Your task to perform on an android device: star an email in the gmail app Image 0: 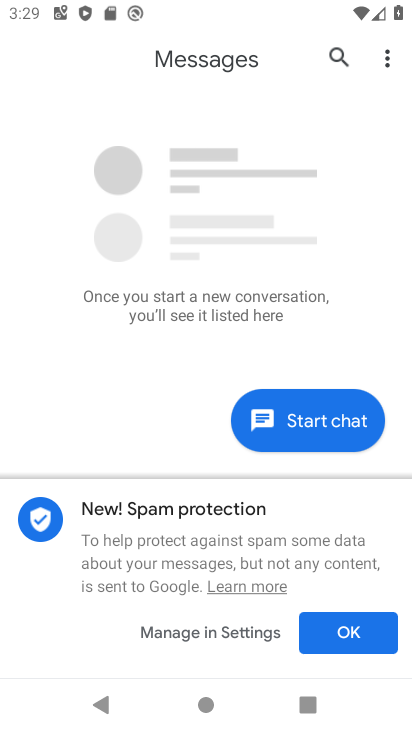
Step 0: press home button
Your task to perform on an android device: star an email in the gmail app Image 1: 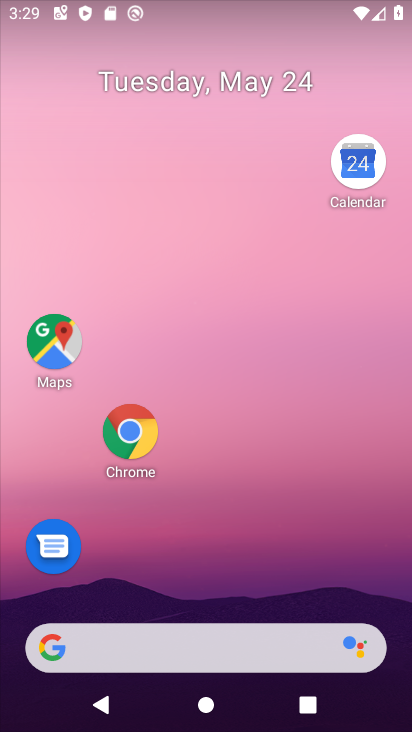
Step 1: drag from (212, 534) to (201, 108)
Your task to perform on an android device: star an email in the gmail app Image 2: 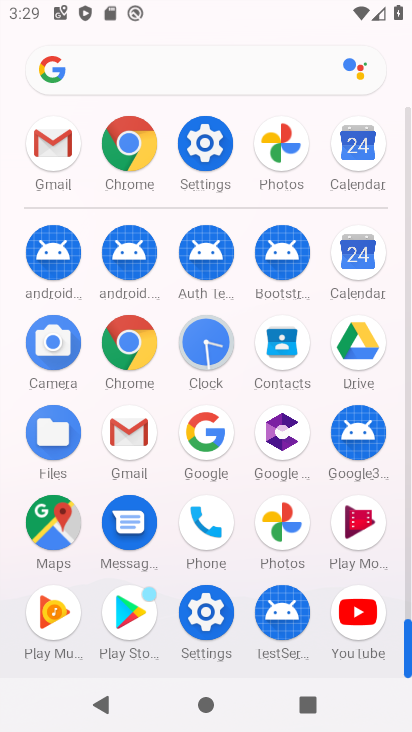
Step 2: click (126, 447)
Your task to perform on an android device: star an email in the gmail app Image 3: 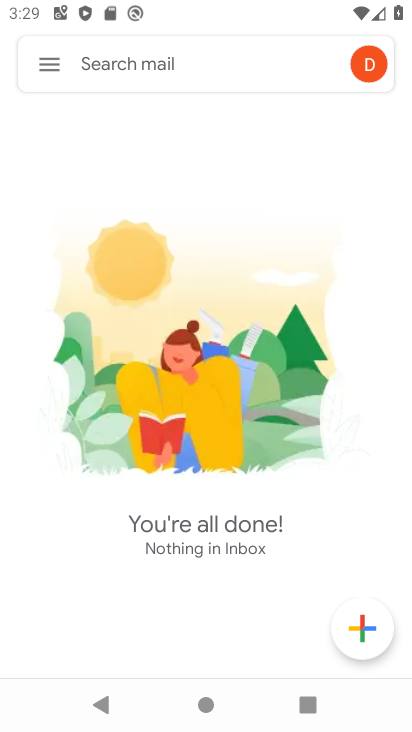
Step 3: drag from (239, 604) to (267, 230)
Your task to perform on an android device: star an email in the gmail app Image 4: 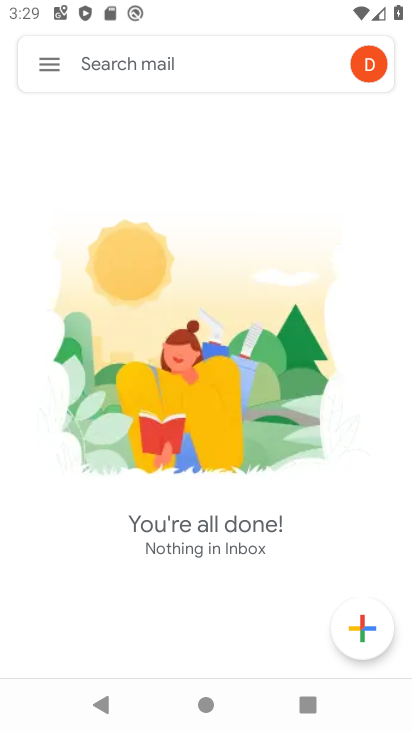
Step 4: click (58, 73)
Your task to perform on an android device: star an email in the gmail app Image 5: 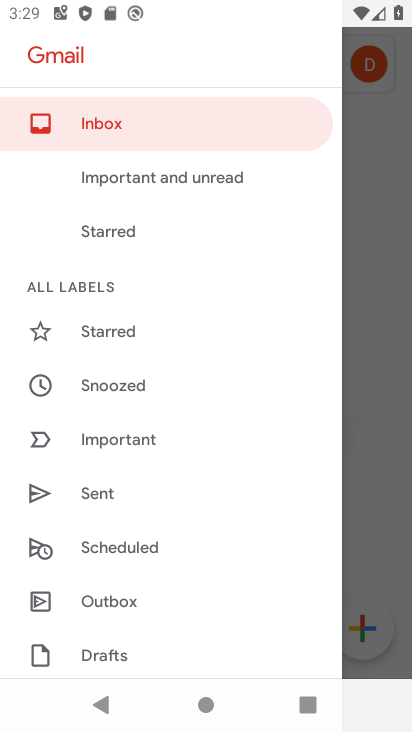
Step 5: click (111, 338)
Your task to perform on an android device: star an email in the gmail app Image 6: 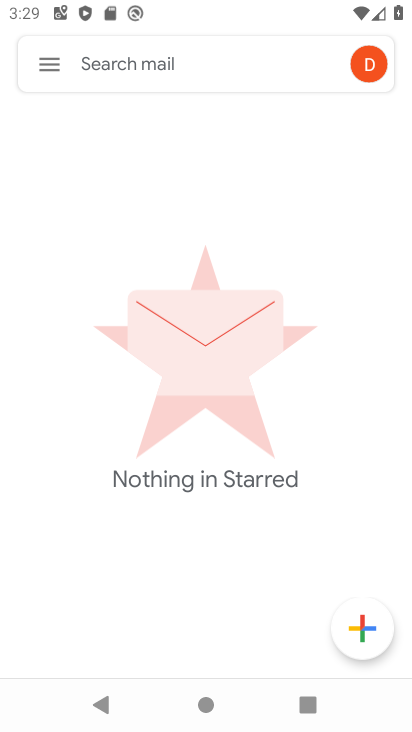
Step 6: task complete